Your task to perform on an android device: choose inbox layout in the gmail app Image 0: 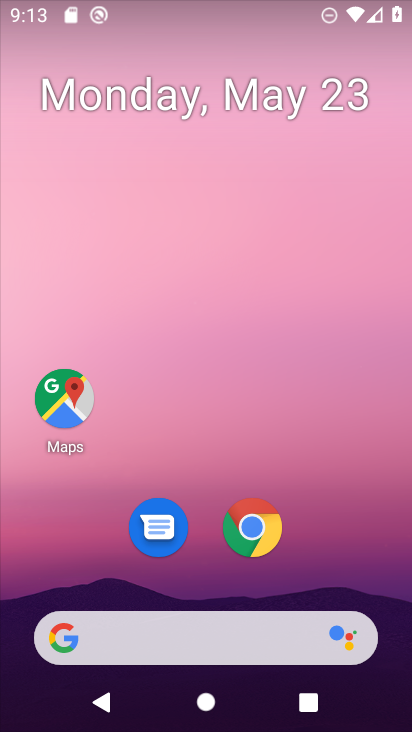
Step 0: drag from (219, 443) to (288, 0)
Your task to perform on an android device: choose inbox layout in the gmail app Image 1: 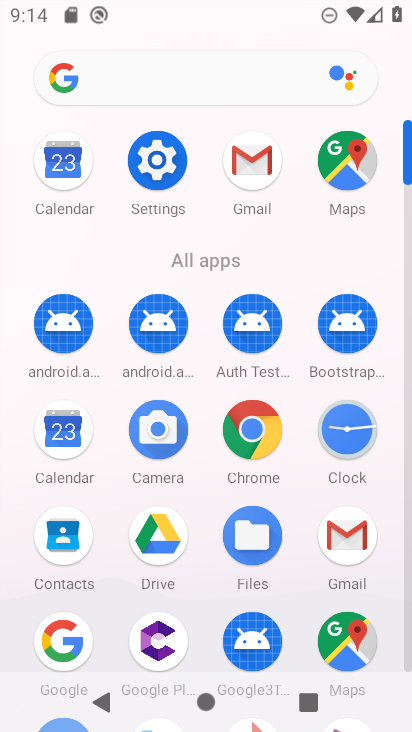
Step 1: click (250, 145)
Your task to perform on an android device: choose inbox layout in the gmail app Image 2: 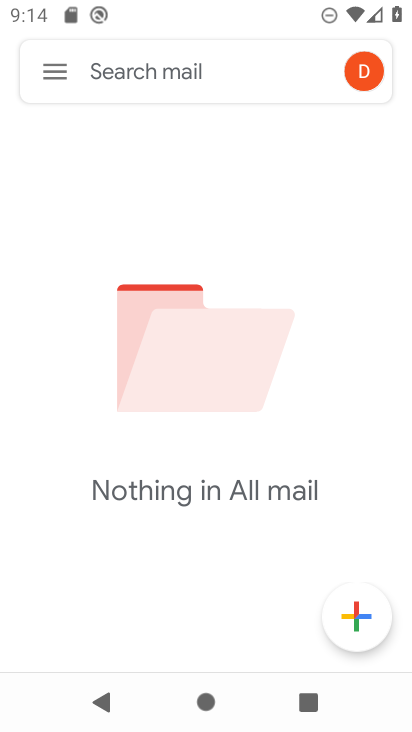
Step 2: click (56, 72)
Your task to perform on an android device: choose inbox layout in the gmail app Image 3: 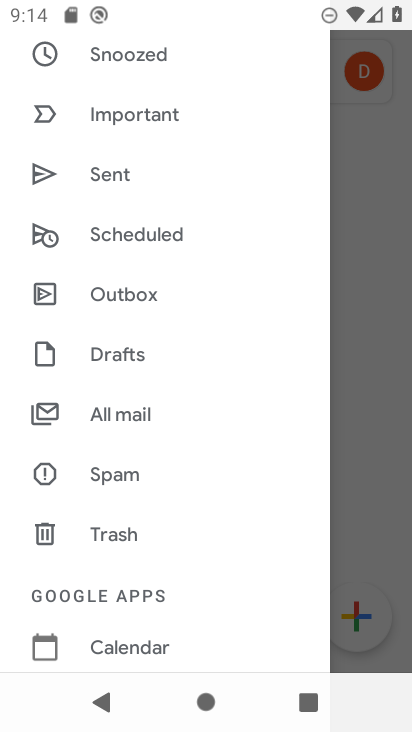
Step 3: drag from (173, 498) to (167, 161)
Your task to perform on an android device: choose inbox layout in the gmail app Image 4: 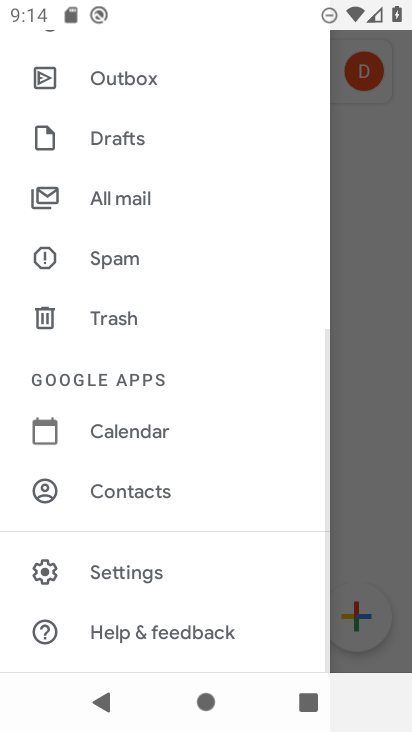
Step 4: click (143, 562)
Your task to perform on an android device: choose inbox layout in the gmail app Image 5: 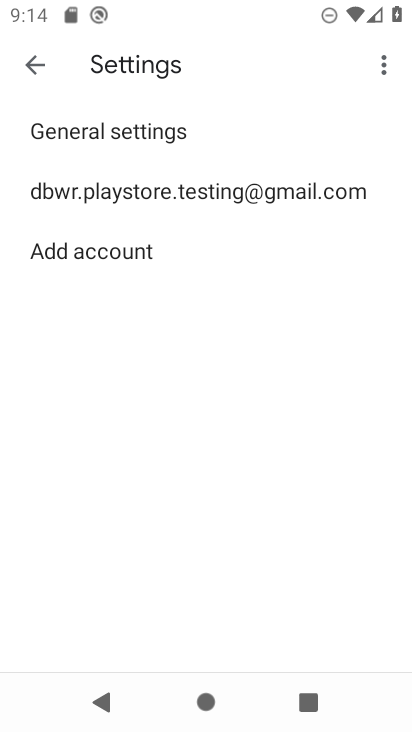
Step 5: click (280, 183)
Your task to perform on an android device: choose inbox layout in the gmail app Image 6: 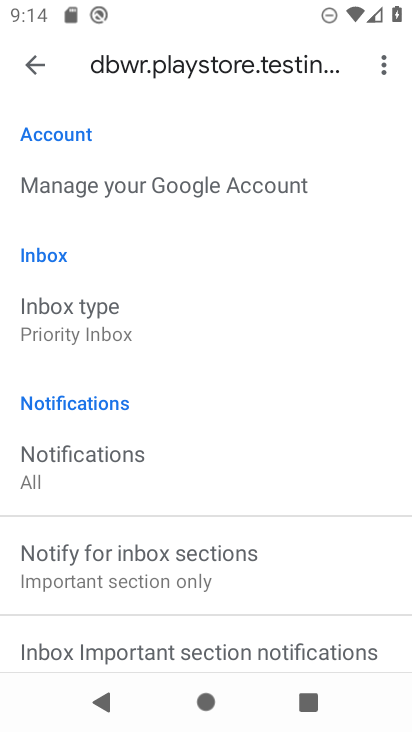
Step 6: click (112, 317)
Your task to perform on an android device: choose inbox layout in the gmail app Image 7: 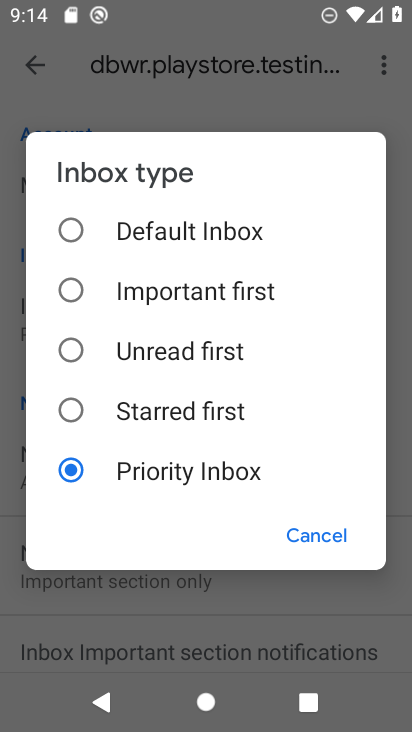
Step 7: click (78, 233)
Your task to perform on an android device: choose inbox layout in the gmail app Image 8: 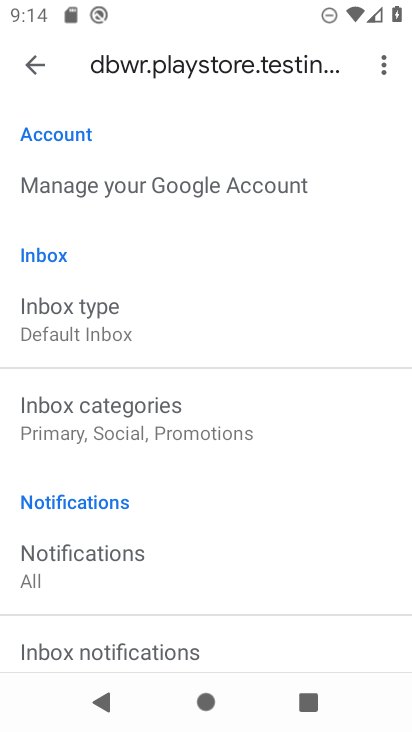
Step 8: task complete